Your task to perform on an android device: turn on location history Image 0: 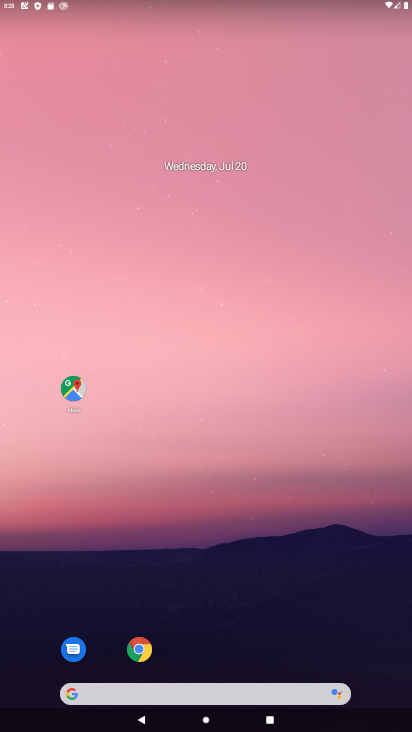
Step 0: task complete